Your task to perform on an android device: set default search engine in the chrome app Image 0: 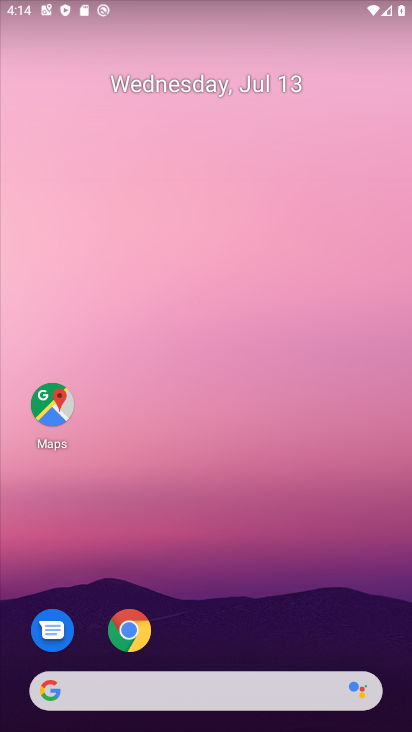
Step 0: drag from (179, 679) to (284, 0)
Your task to perform on an android device: set default search engine in the chrome app Image 1: 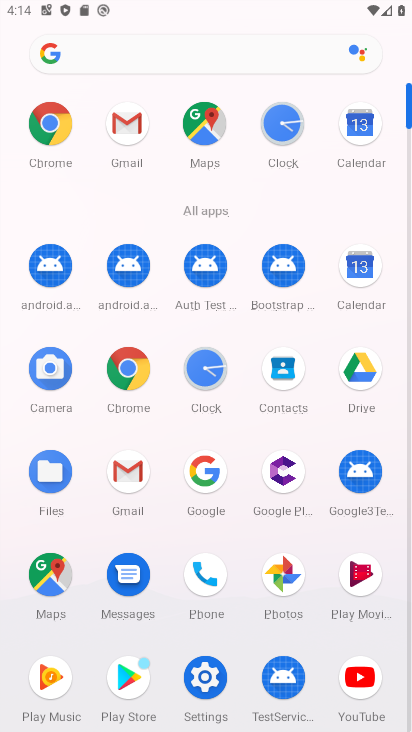
Step 1: click (118, 374)
Your task to perform on an android device: set default search engine in the chrome app Image 2: 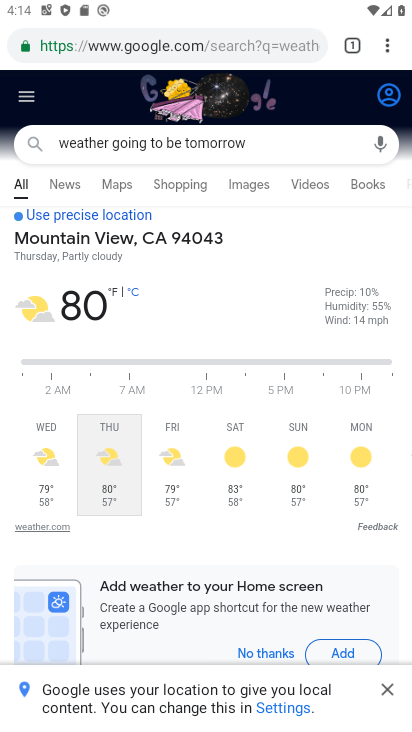
Step 2: drag from (389, 39) to (250, 507)
Your task to perform on an android device: set default search engine in the chrome app Image 3: 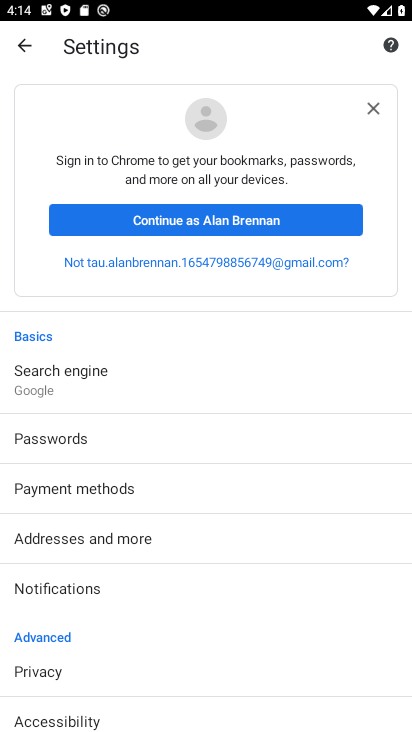
Step 3: drag from (89, 676) to (159, 320)
Your task to perform on an android device: set default search engine in the chrome app Image 4: 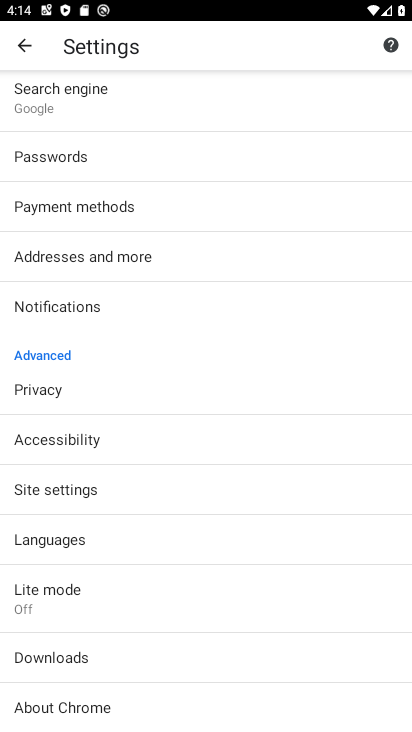
Step 4: click (78, 108)
Your task to perform on an android device: set default search engine in the chrome app Image 5: 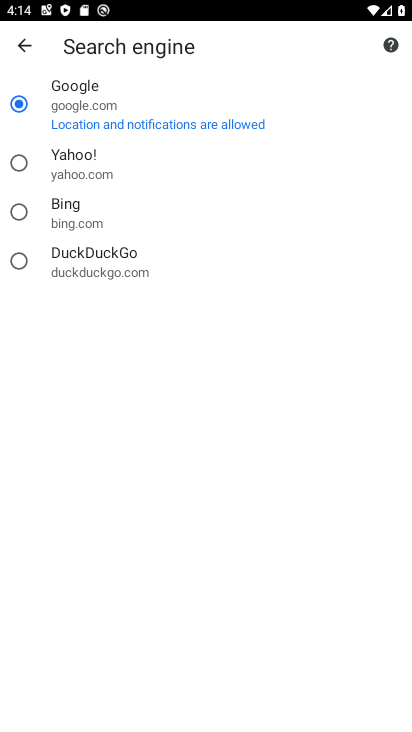
Step 5: task complete